Your task to perform on an android device: Open calendar and show me the fourth week of next month Image 0: 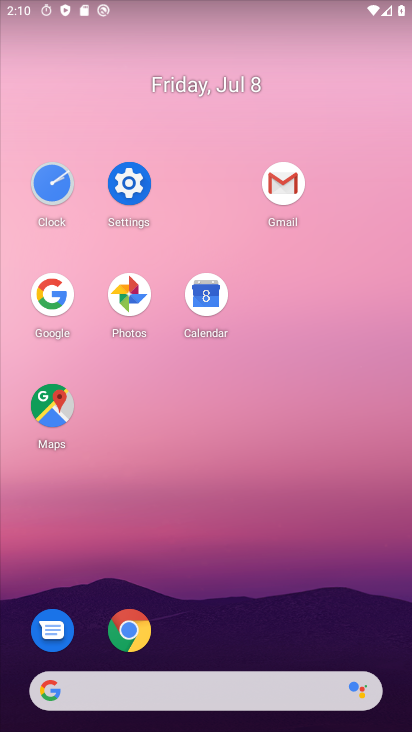
Step 0: click (196, 289)
Your task to perform on an android device: Open calendar and show me the fourth week of next month Image 1: 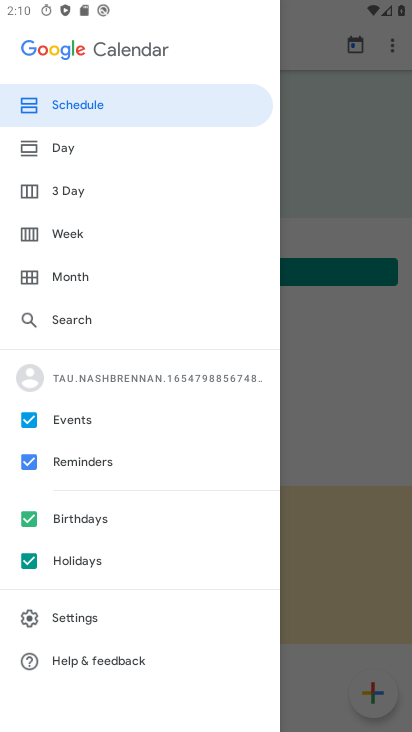
Step 1: click (62, 226)
Your task to perform on an android device: Open calendar and show me the fourth week of next month Image 2: 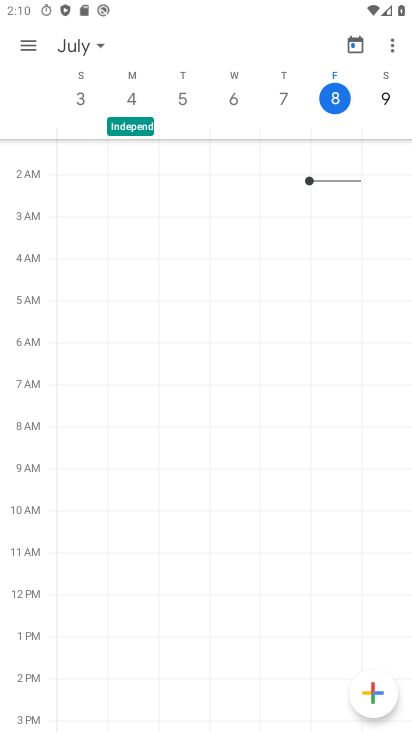
Step 2: click (23, 63)
Your task to perform on an android device: Open calendar and show me the fourth week of next month Image 3: 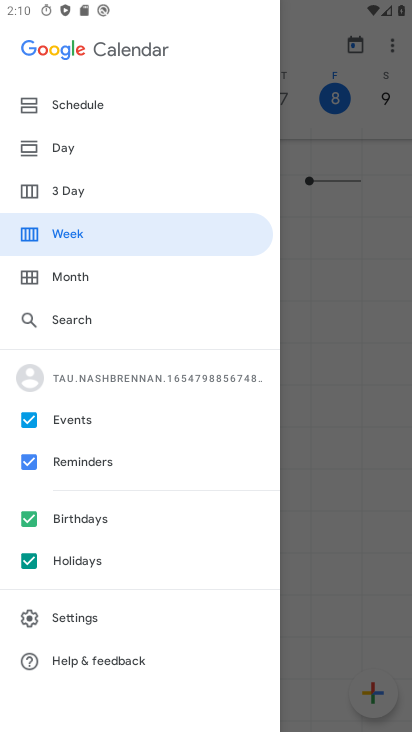
Step 3: click (303, 23)
Your task to perform on an android device: Open calendar and show me the fourth week of next month Image 4: 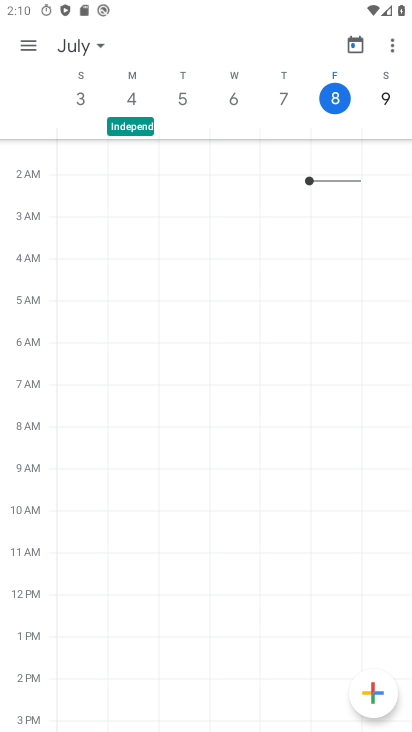
Step 4: click (73, 40)
Your task to perform on an android device: Open calendar and show me the fourth week of next month Image 5: 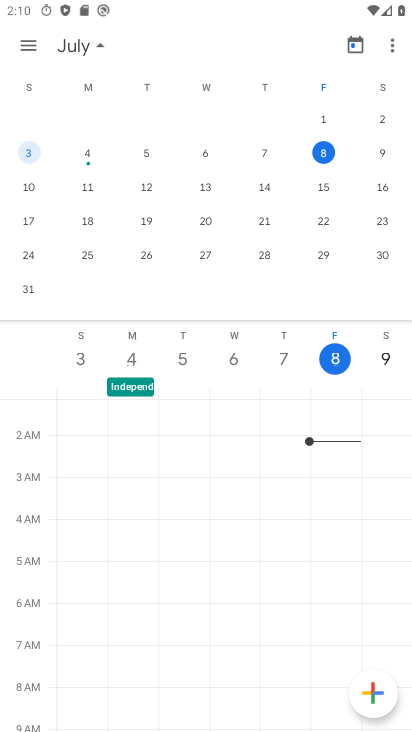
Step 5: drag from (371, 231) to (10, 214)
Your task to perform on an android device: Open calendar and show me the fourth week of next month Image 6: 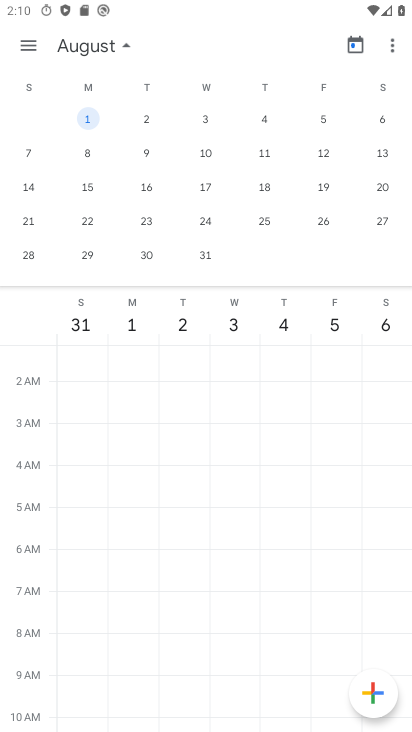
Step 6: click (31, 36)
Your task to perform on an android device: Open calendar and show me the fourth week of next month Image 7: 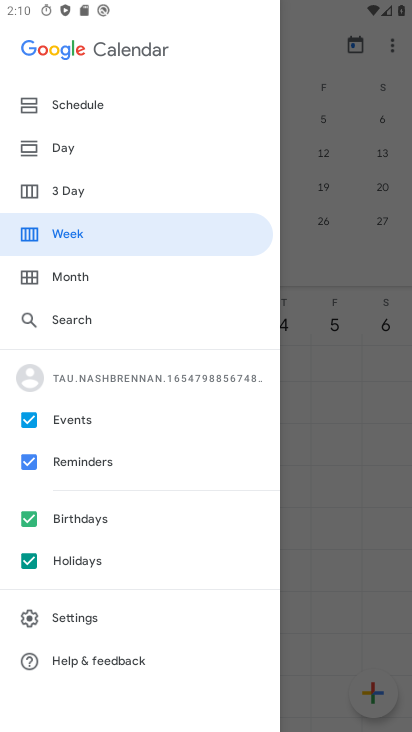
Step 7: click (111, 232)
Your task to perform on an android device: Open calendar and show me the fourth week of next month Image 8: 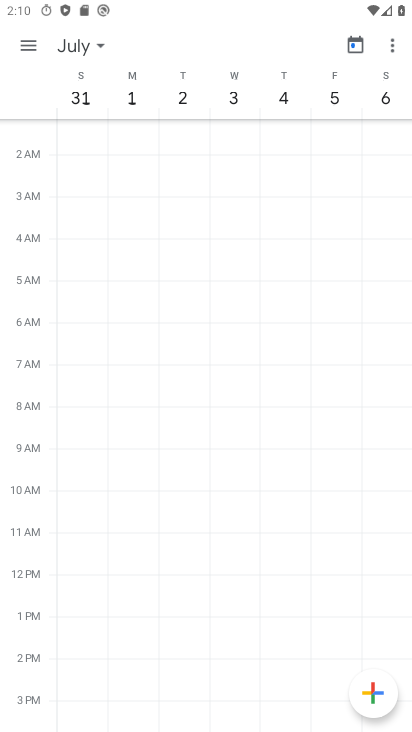
Step 8: task complete